Your task to perform on an android device: Open wifi settings Image 0: 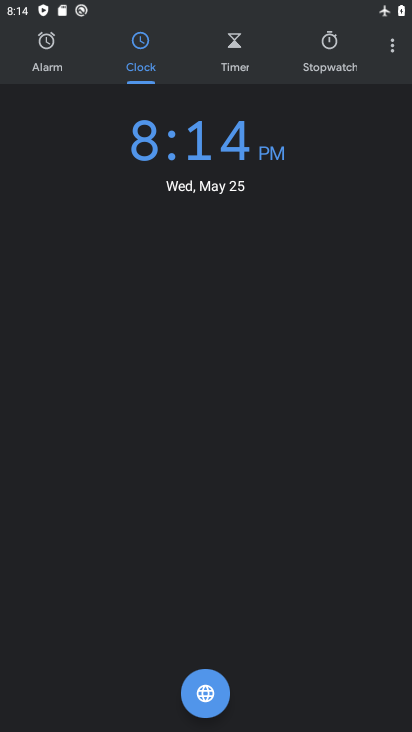
Step 0: press home button
Your task to perform on an android device: Open wifi settings Image 1: 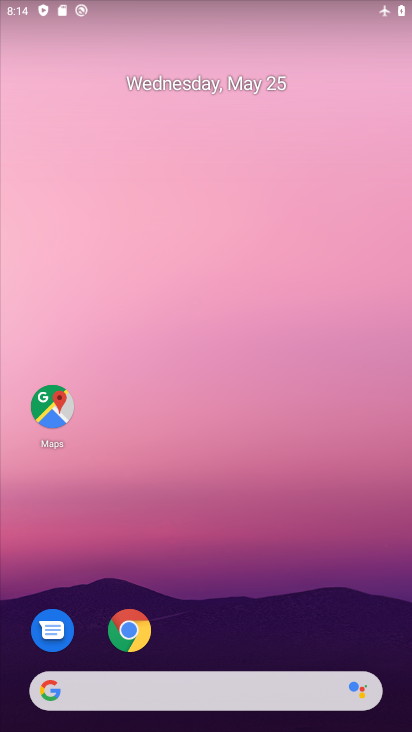
Step 1: drag from (208, 652) to (330, 127)
Your task to perform on an android device: Open wifi settings Image 2: 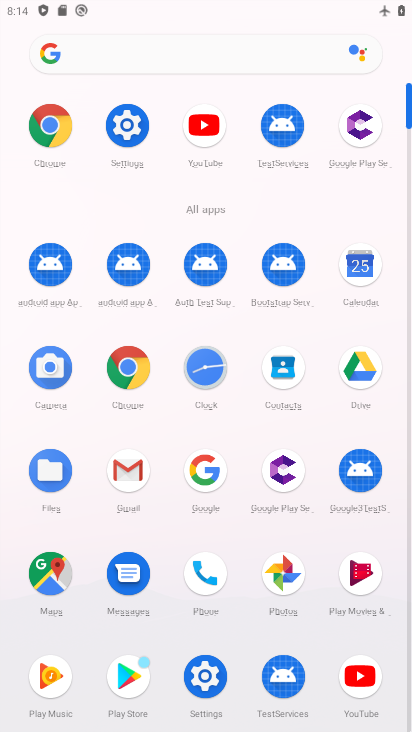
Step 2: click (211, 666)
Your task to perform on an android device: Open wifi settings Image 3: 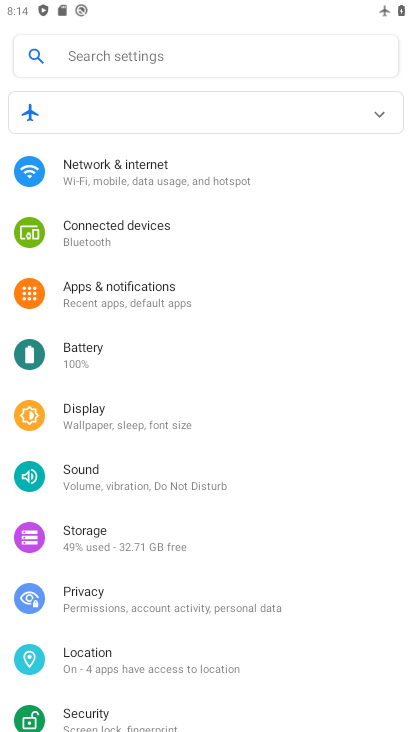
Step 3: click (142, 177)
Your task to perform on an android device: Open wifi settings Image 4: 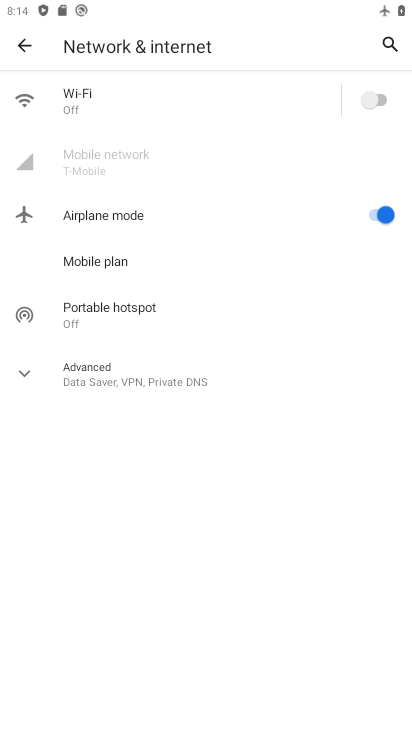
Step 4: click (134, 103)
Your task to perform on an android device: Open wifi settings Image 5: 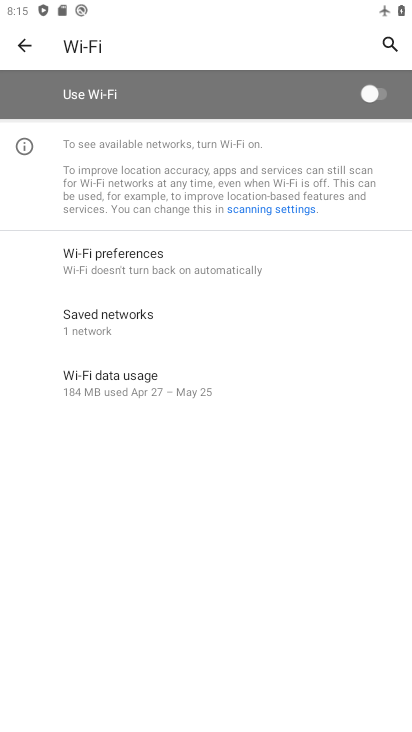
Step 5: task complete